Your task to perform on an android device: create a new album in the google photos Image 0: 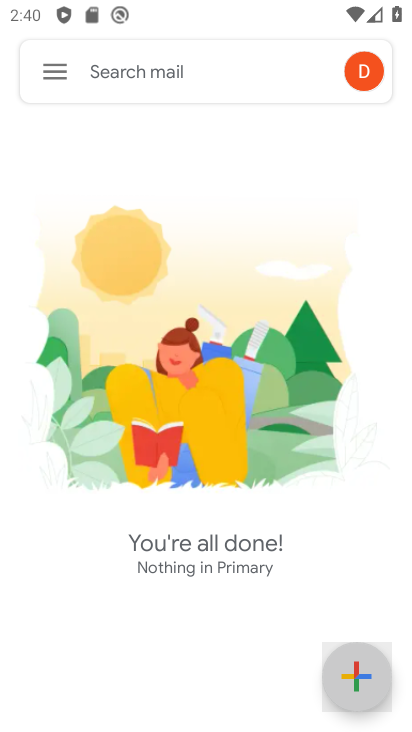
Step 0: press home button
Your task to perform on an android device: create a new album in the google photos Image 1: 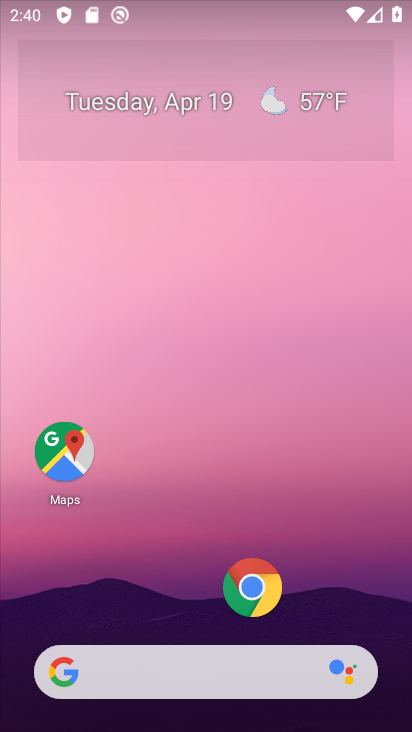
Step 1: drag from (162, 578) to (410, 49)
Your task to perform on an android device: create a new album in the google photos Image 2: 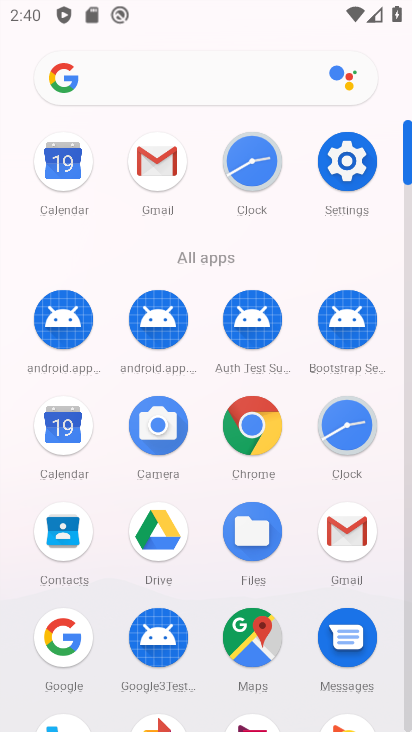
Step 2: drag from (204, 597) to (284, 237)
Your task to perform on an android device: create a new album in the google photos Image 3: 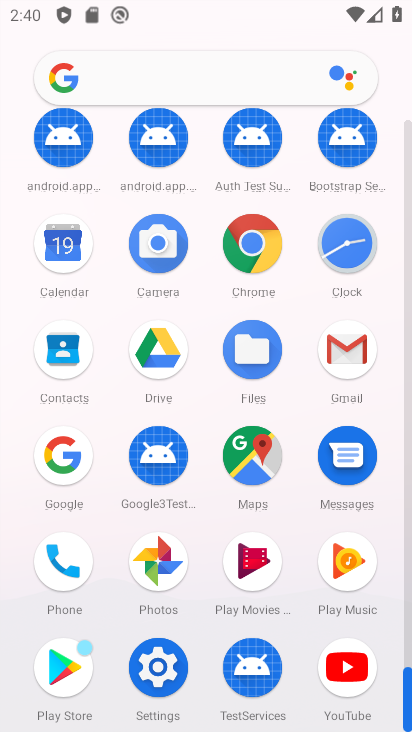
Step 3: click (160, 568)
Your task to perform on an android device: create a new album in the google photos Image 4: 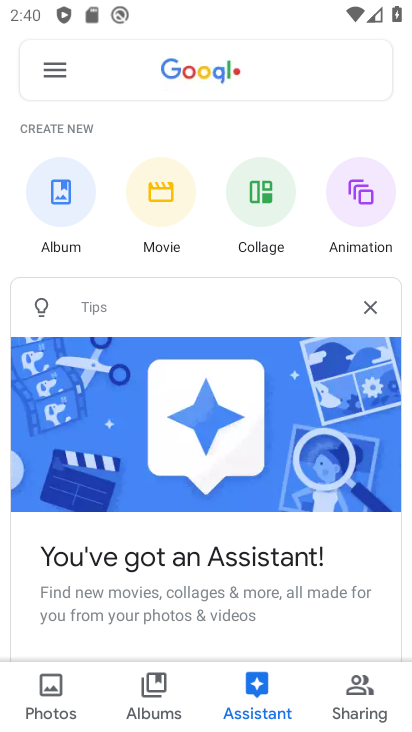
Step 4: click (161, 697)
Your task to perform on an android device: create a new album in the google photos Image 5: 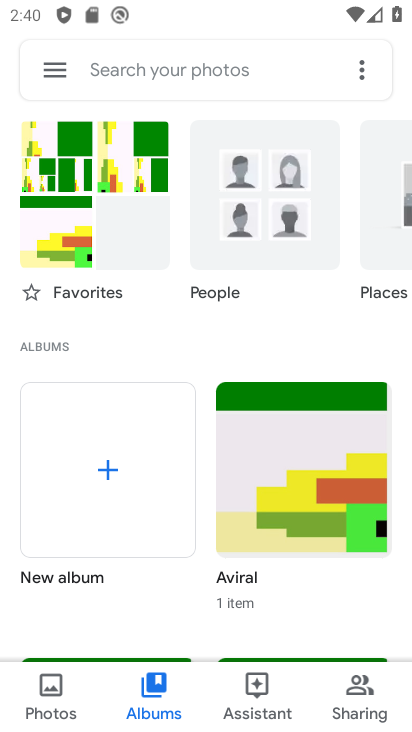
Step 5: click (104, 466)
Your task to perform on an android device: create a new album in the google photos Image 6: 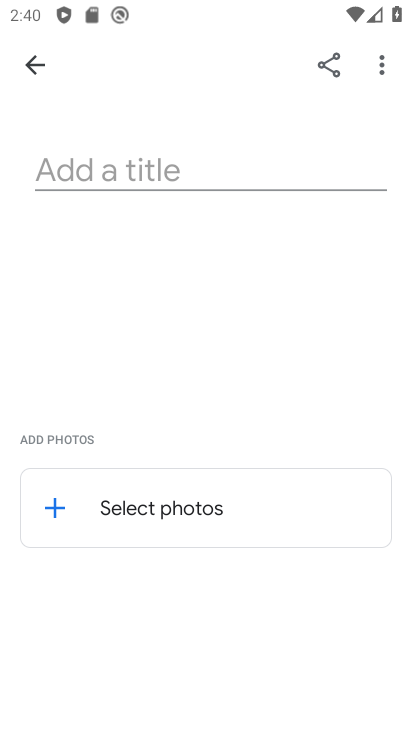
Step 6: click (200, 164)
Your task to perform on an android device: create a new album in the google photos Image 7: 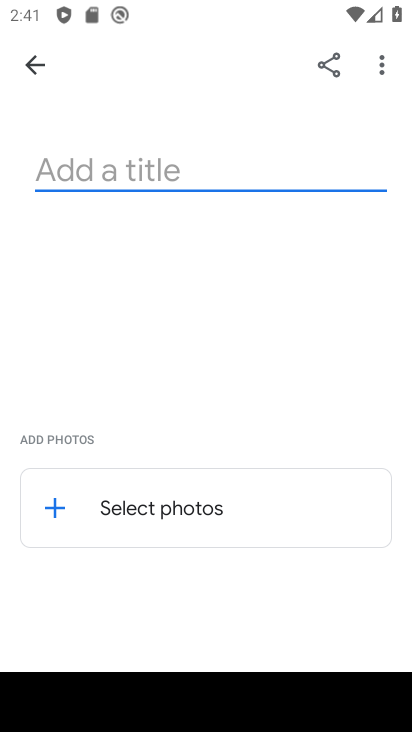
Step 7: type "maria"
Your task to perform on an android device: create a new album in the google photos Image 8: 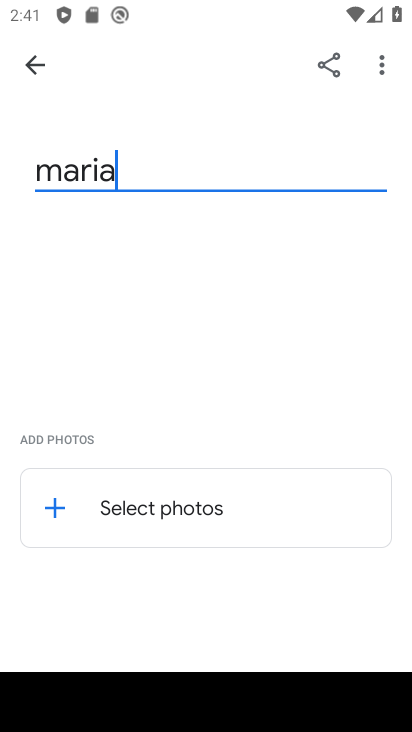
Step 8: click (52, 508)
Your task to perform on an android device: create a new album in the google photos Image 9: 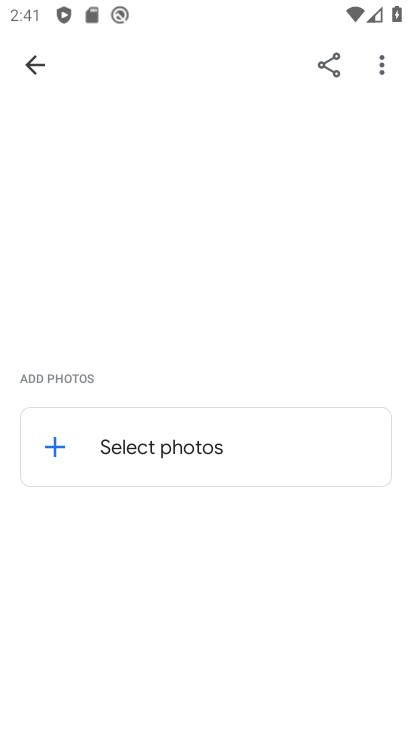
Step 9: drag from (126, 275) to (89, 533)
Your task to perform on an android device: create a new album in the google photos Image 10: 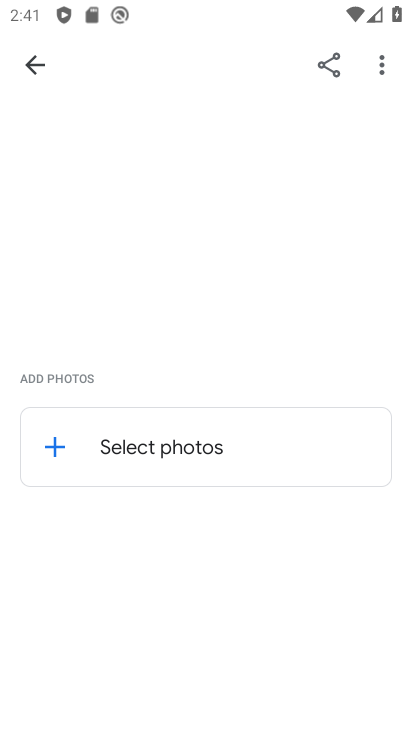
Step 10: click (62, 446)
Your task to perform on an android device: create a new album in the google photos Image 11: 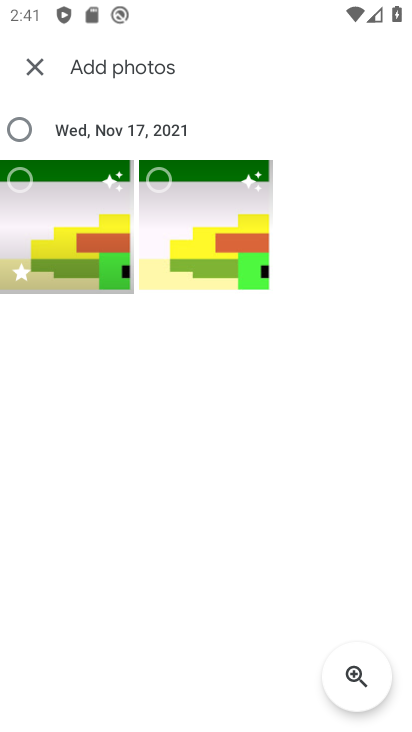
Step 11: click (36, 177)
Your task to perform on an android device: create a new album in the google photos Image 12: 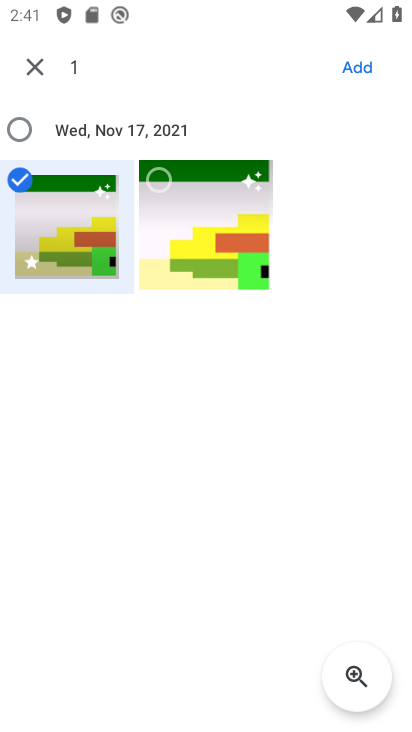
Step 12: click (173, 202)
Your task to perform on an android device: create a new album in the google photos Image 13: 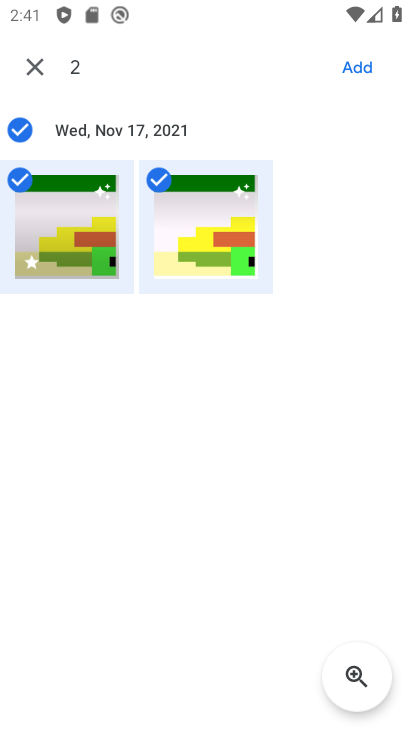
Step 13: click (361, 64)
Your task to perform on an android device: create a new album in the google photos Image 14: 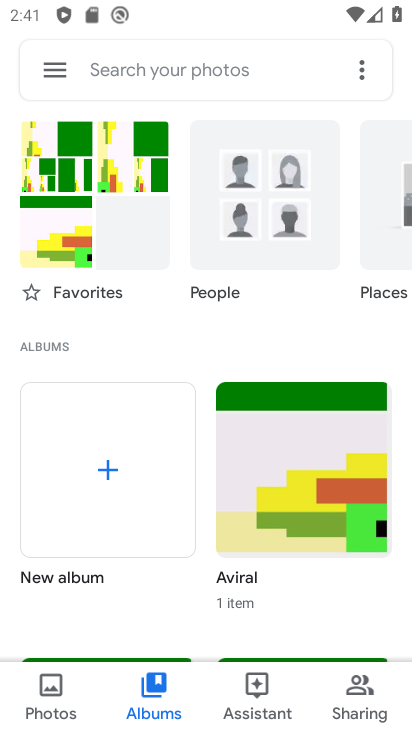
Step 14: click (109, 472)
Your task to perform on an android device: create a new album in the google photos Image 15: 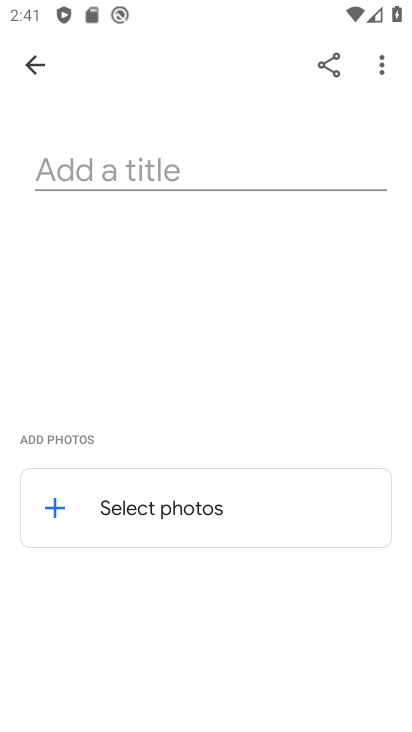
Step 15: click (166, 167)
Your task to perform on an android device: create a new album in the google photos Image 16: 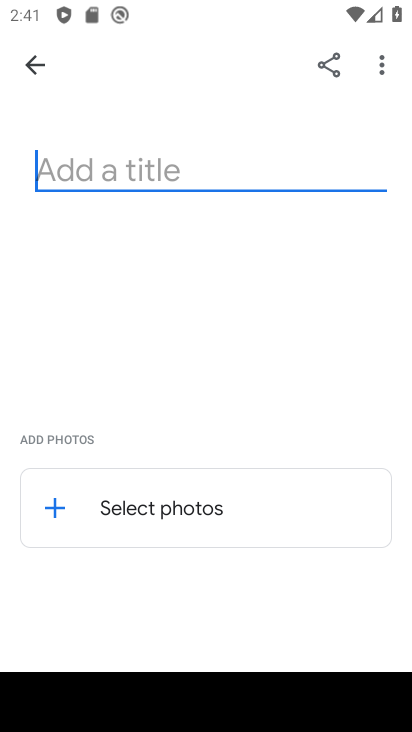
Step 16: type "aaavil"
Your task to perform on an android device: create a new album in the google photos Image 17: 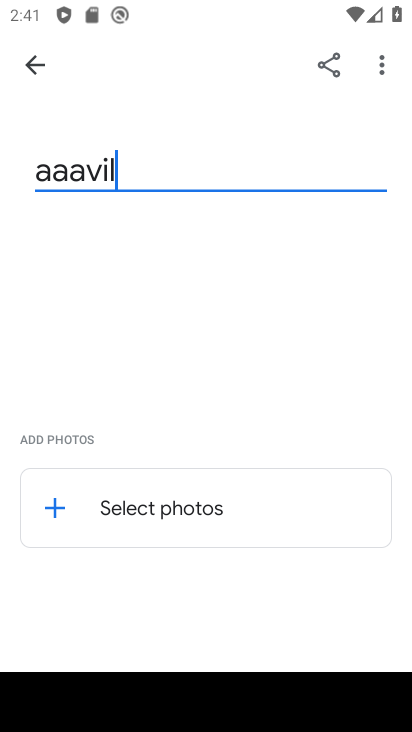
Step 17: click (71, 497)
Your task to perform on an android device: create a new album in the google photos Image 18: 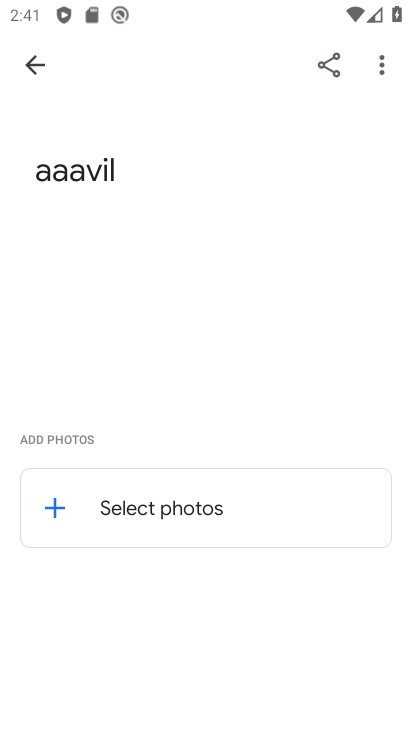
Step 18: click (46, 505)
Your task to perform on an android device: create a new album in the google photos Image 19: 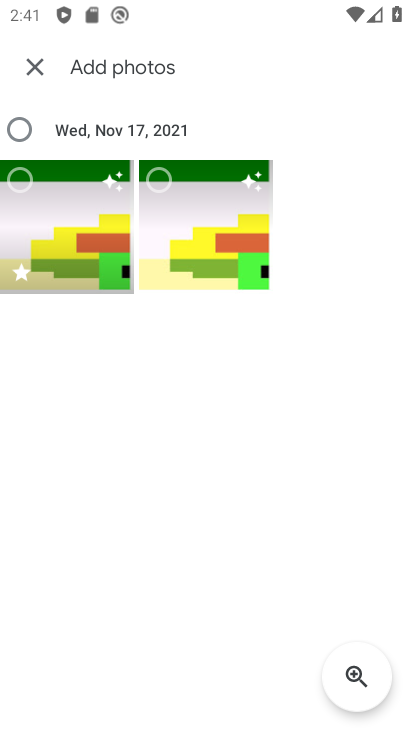
Step 19: click (36, 189)
Your task to perform on an android device: create a new album in the google photos Image 20: 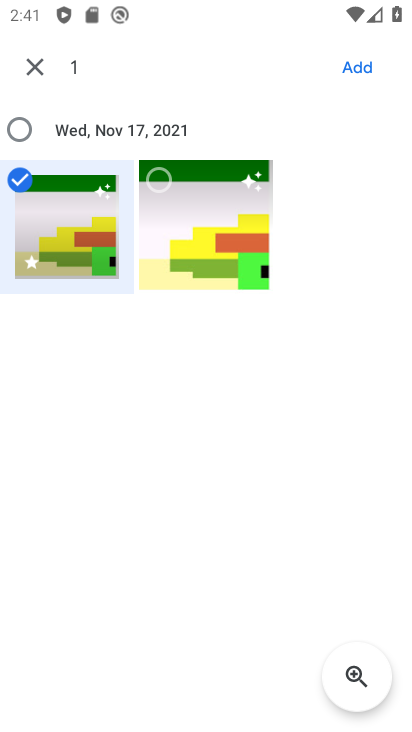
Step 20: click (160, 187)
Your task to perform on an android device: create a new album in the google photos Image 21: 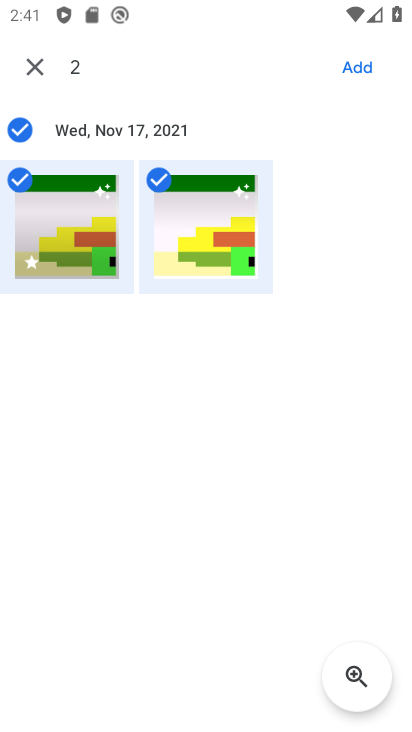
Step 21: click (354, 61)
Your task to perform on an android device: create a new album in the google photos Image 22: 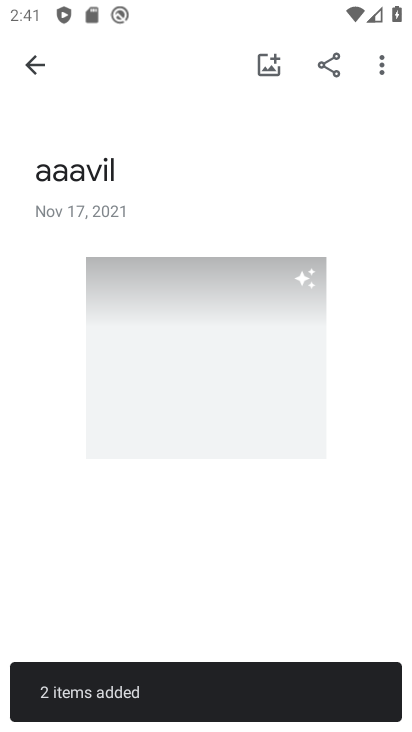
Step 22: task complete